Your task to perform on an android device: Go to battery settings Image 0: 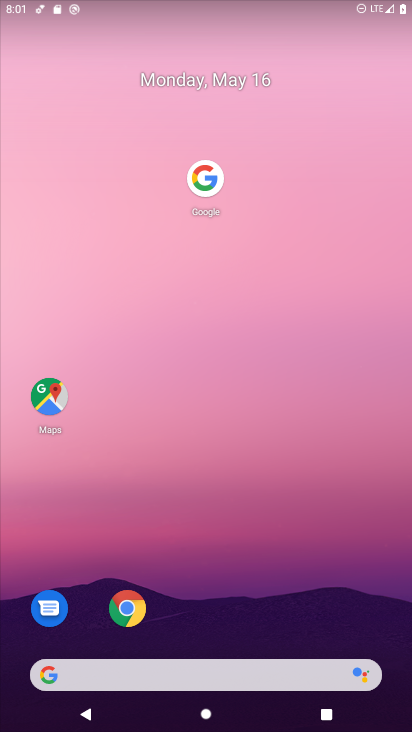
Step 0: drag from (247, 562) to (289, 75)
Your task to perform on an android device: Go to battery settings Image 1: 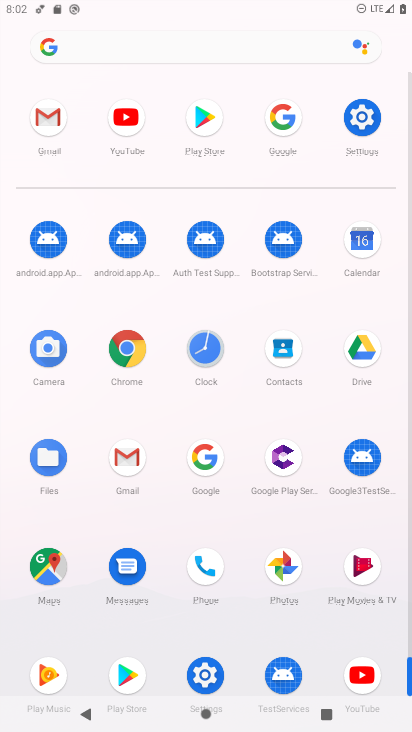
Step 1: click (363, 116)
Your task to perform on an android device: Go to battery settings Image 2: 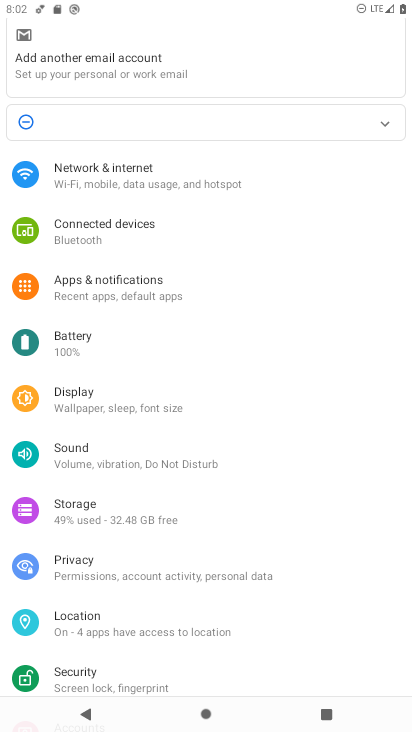
Step 2: click (75, 340)
Your task to perform on an android device: Go to battery settings Image 3: 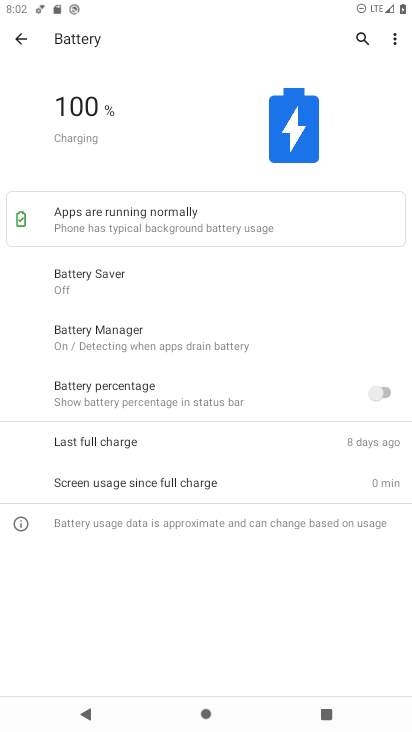
Step 3: task complete